Your task to perform on an android device: Do I have any events today? Image 0: 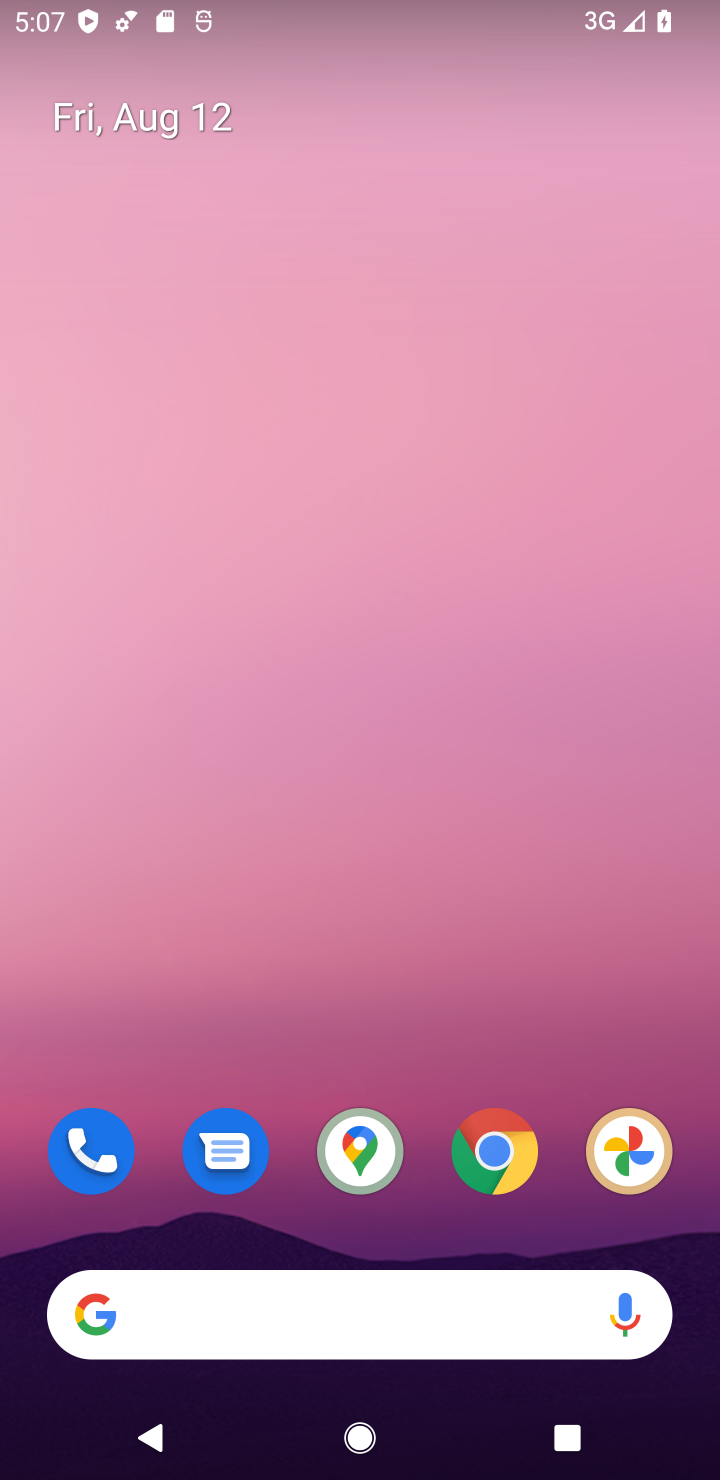
Step 0: drag from (438, 1054) to (602, 11)
Your task to perform on an android device: Do I have any events today? Image 1: 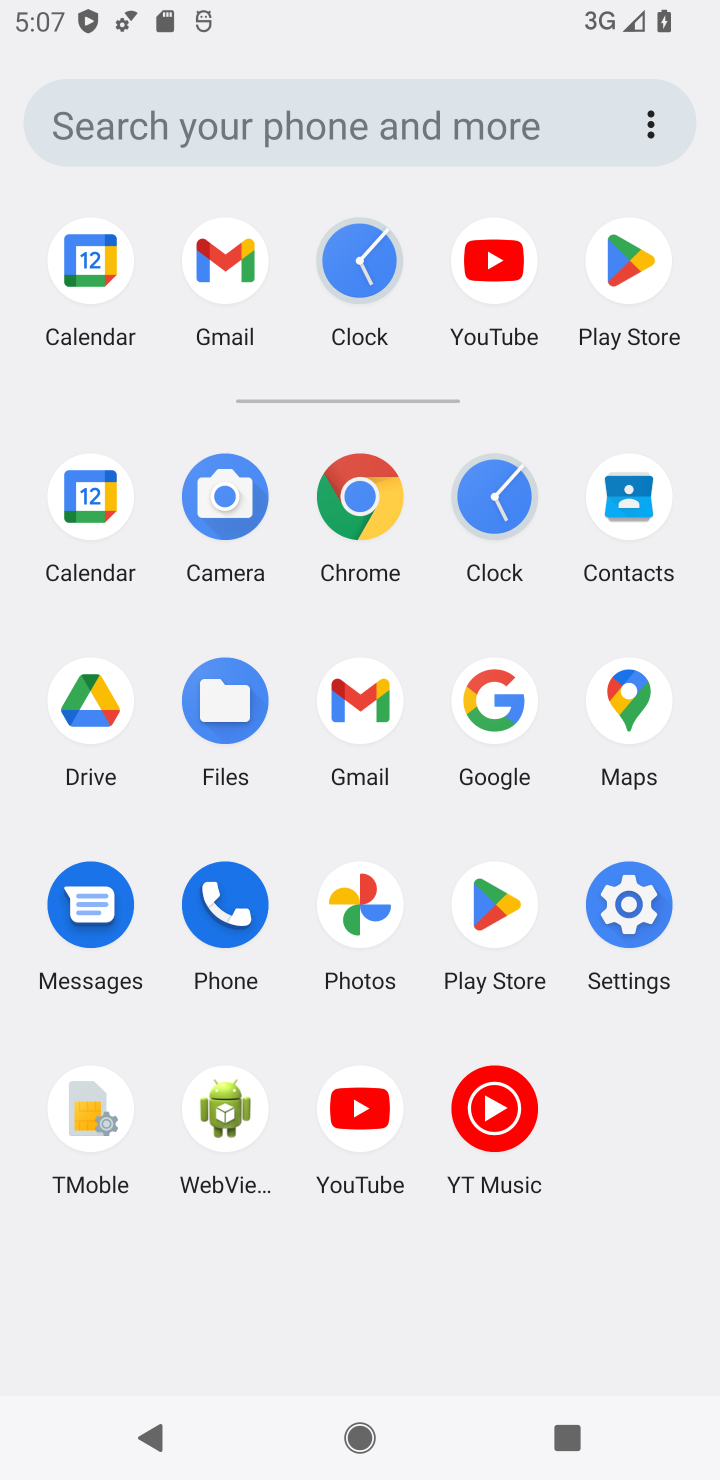
Step 1: click (357, 497)
Your task to perform on an android device: Do I have any events today? Image 2: 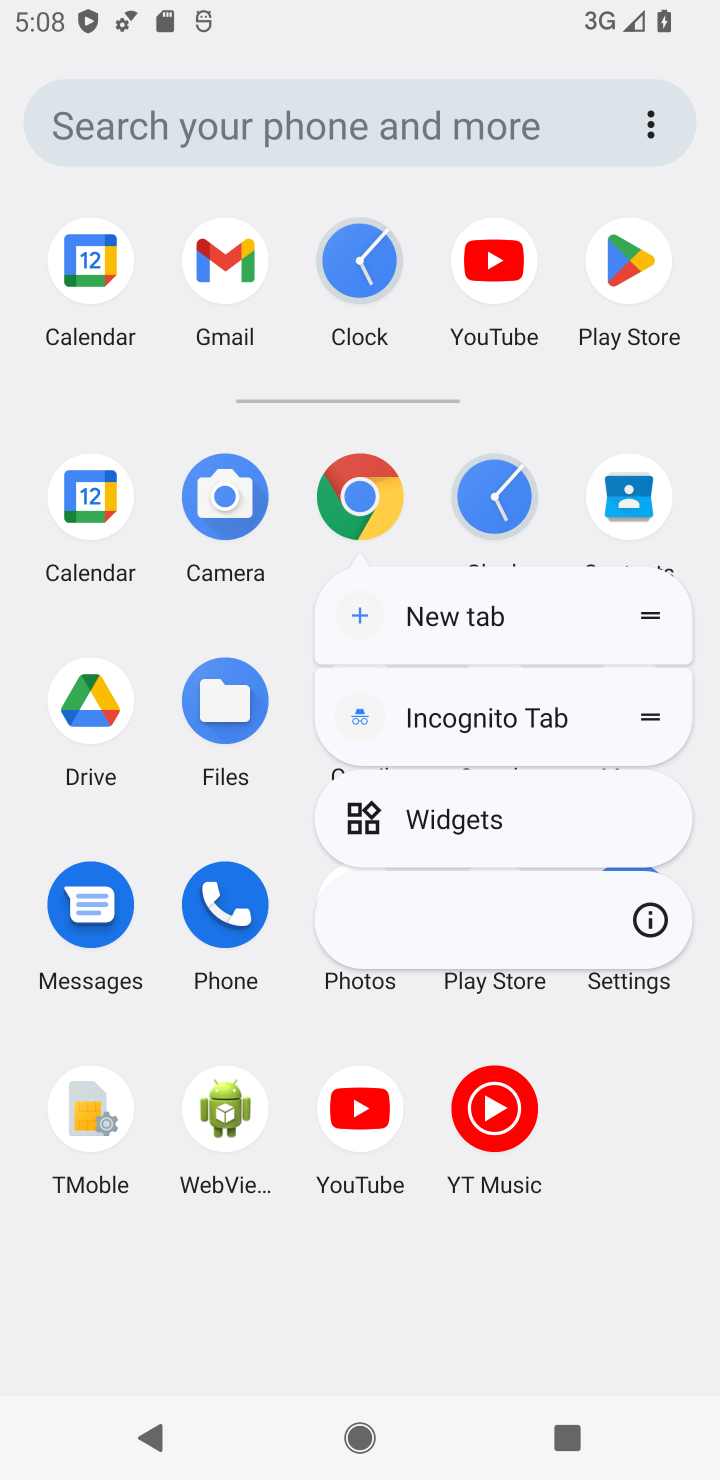
Step 2: click (357, 497)
Your task to perform on an android device: Do I have any events today? Image 3: 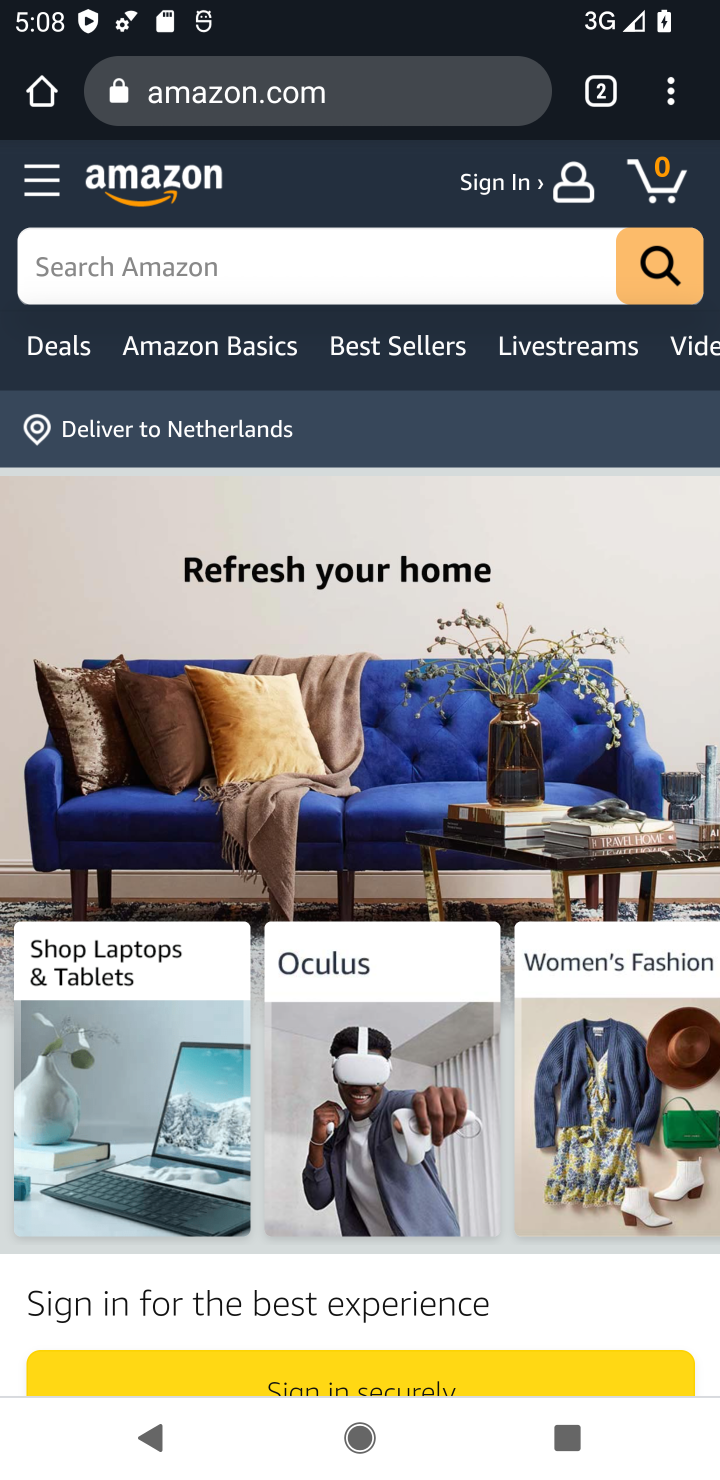
Step 3: press home button
Your task to perform on an android device: Do I have any events today? Image 4: 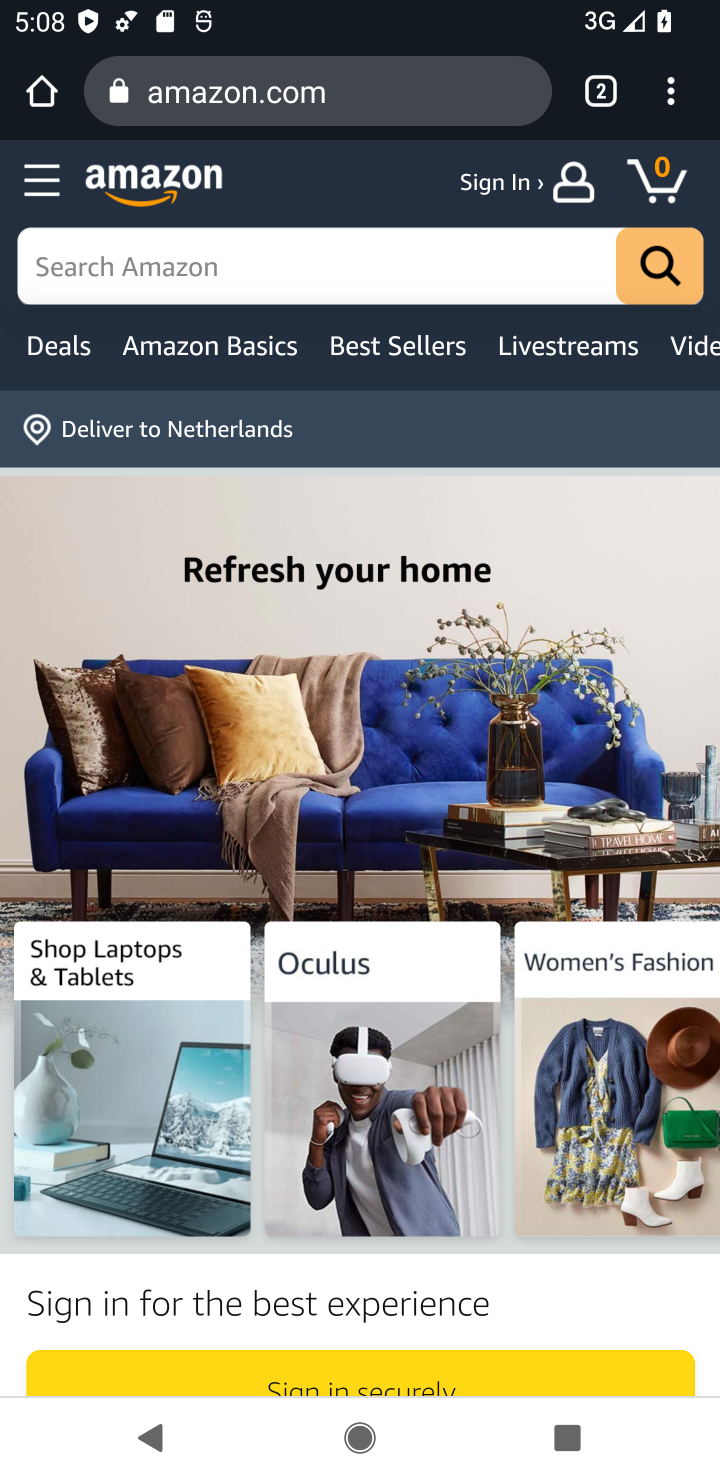
Step 4: press home button
Your task to perform on an android device: Do I have any events today? Image 5: 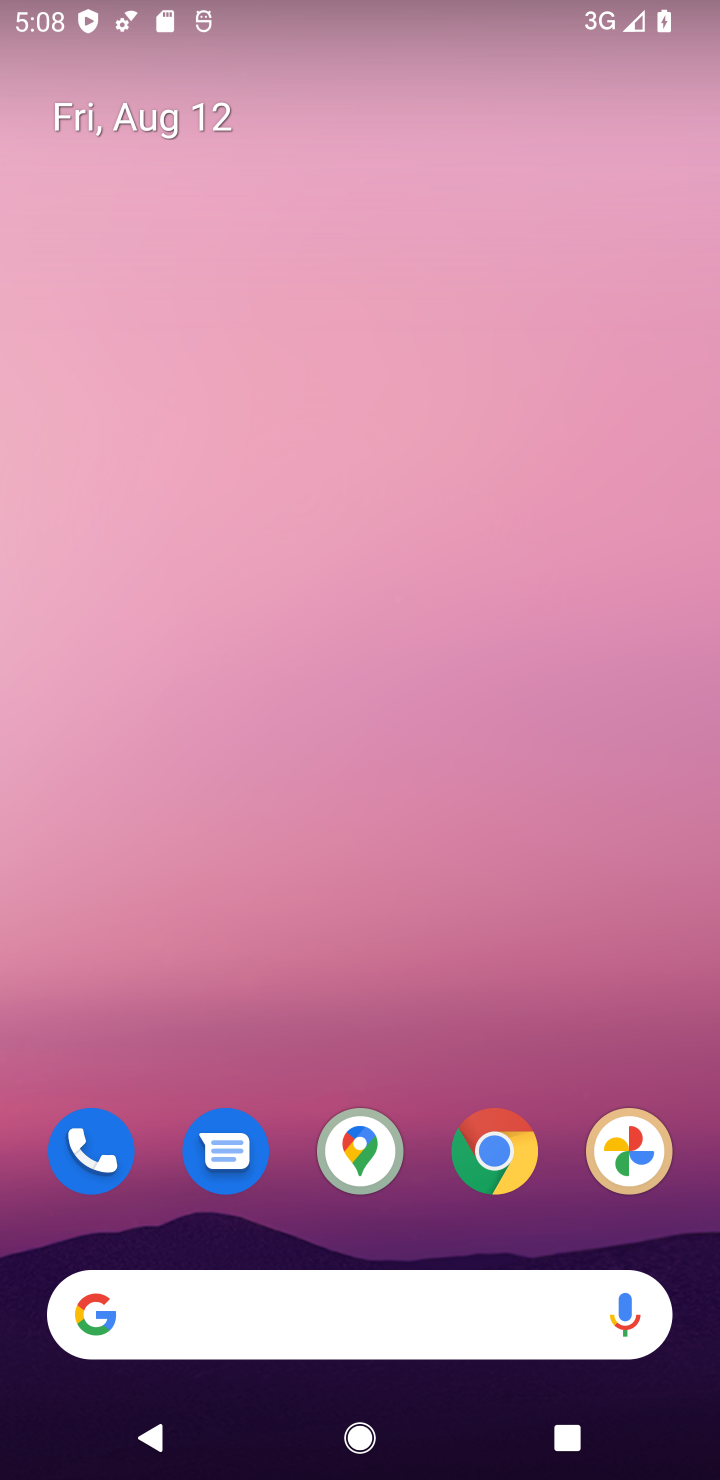
Step 5: drag from (537, 946) to (691, 3)
Your task to perform on an android device: Do I have any events today? Image 6: 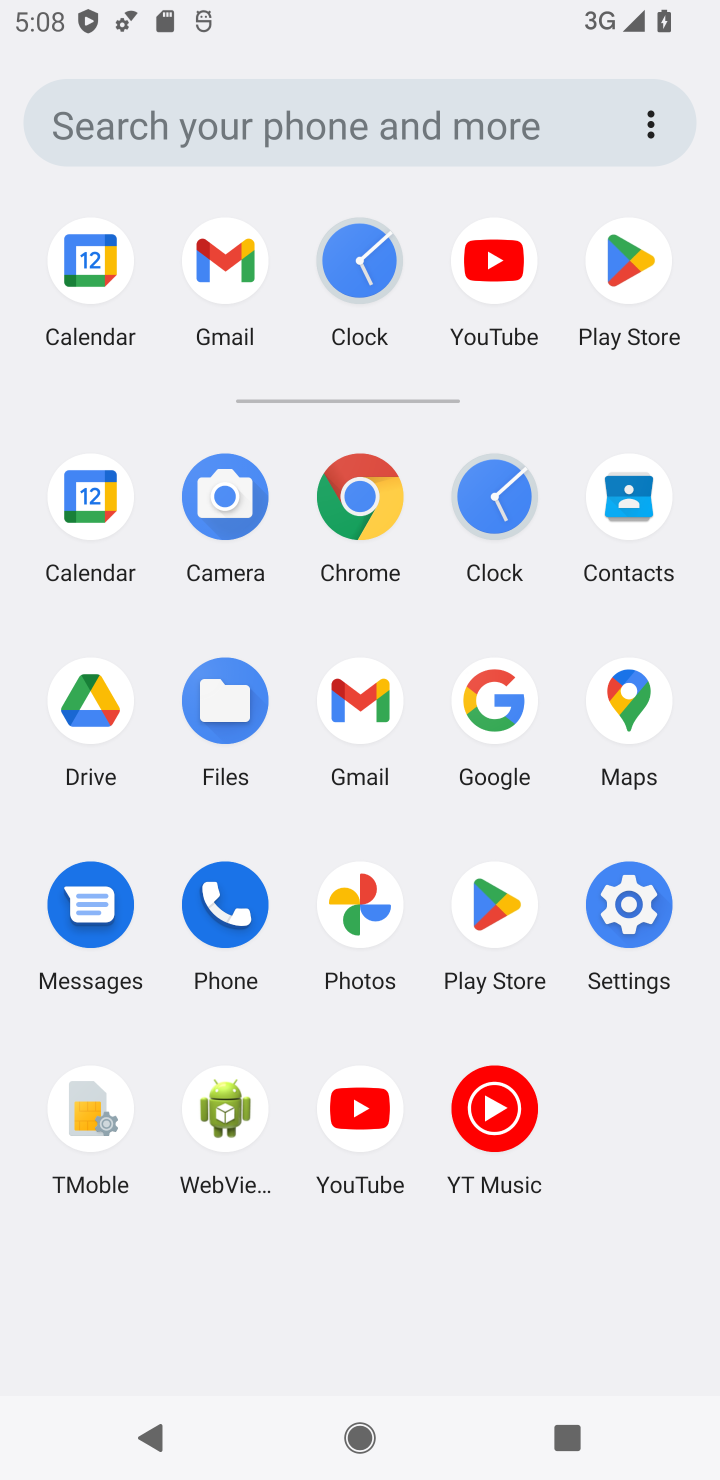
Step 6: click (103, 493)
Your task to perform on an android device: Do I have any events today? Image 7: 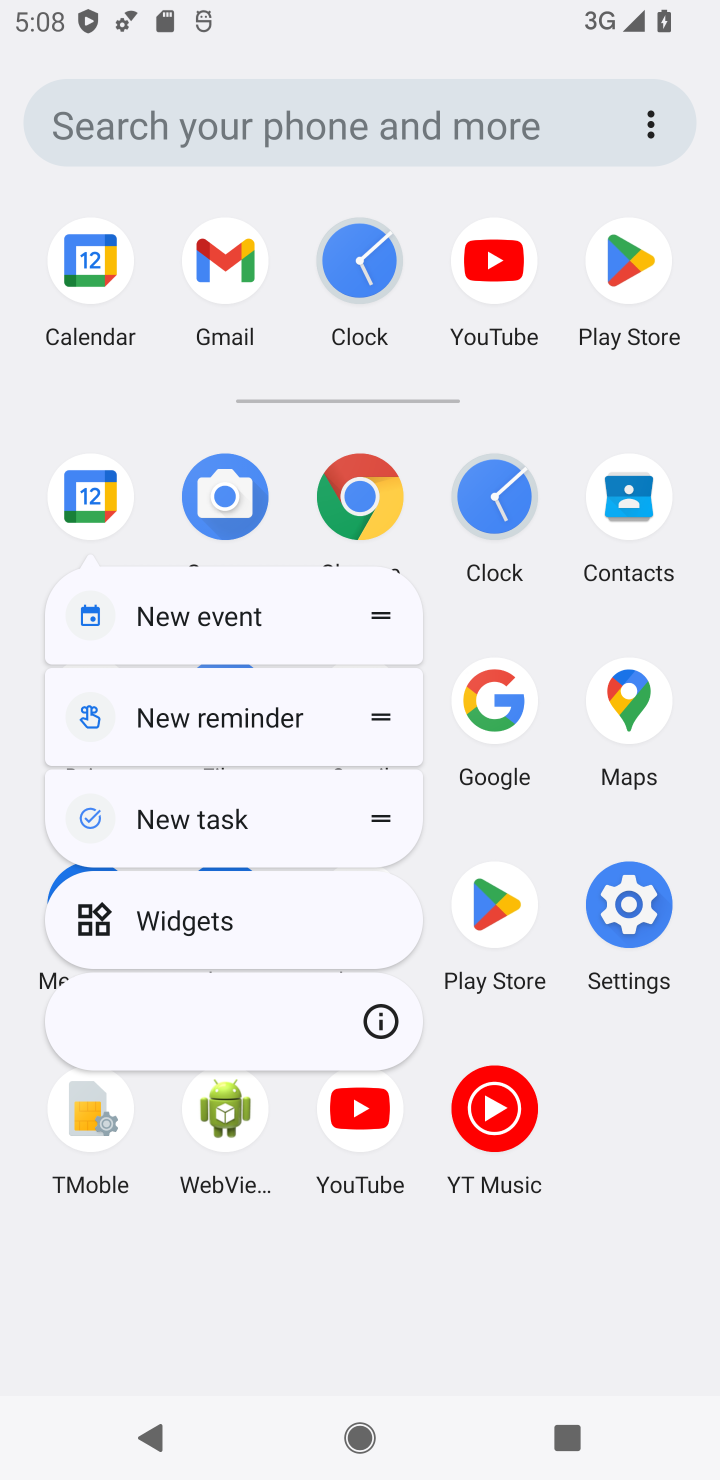
Step 7: click (100, 494)
Your task to perform on an android device: Do I have any events today? Image 8: 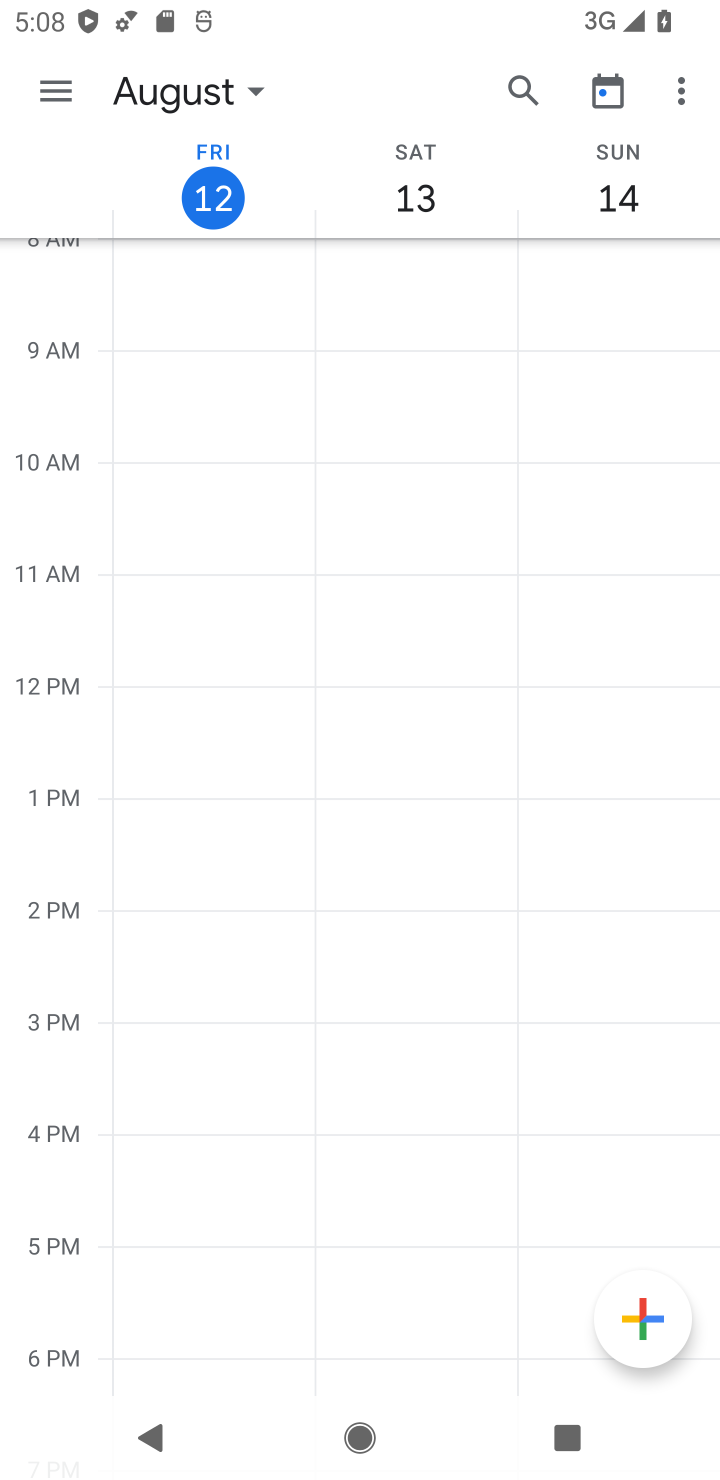
Step 8: click (210, 195)
Your task to perform on an android device: Do I have any events today? Image 9: 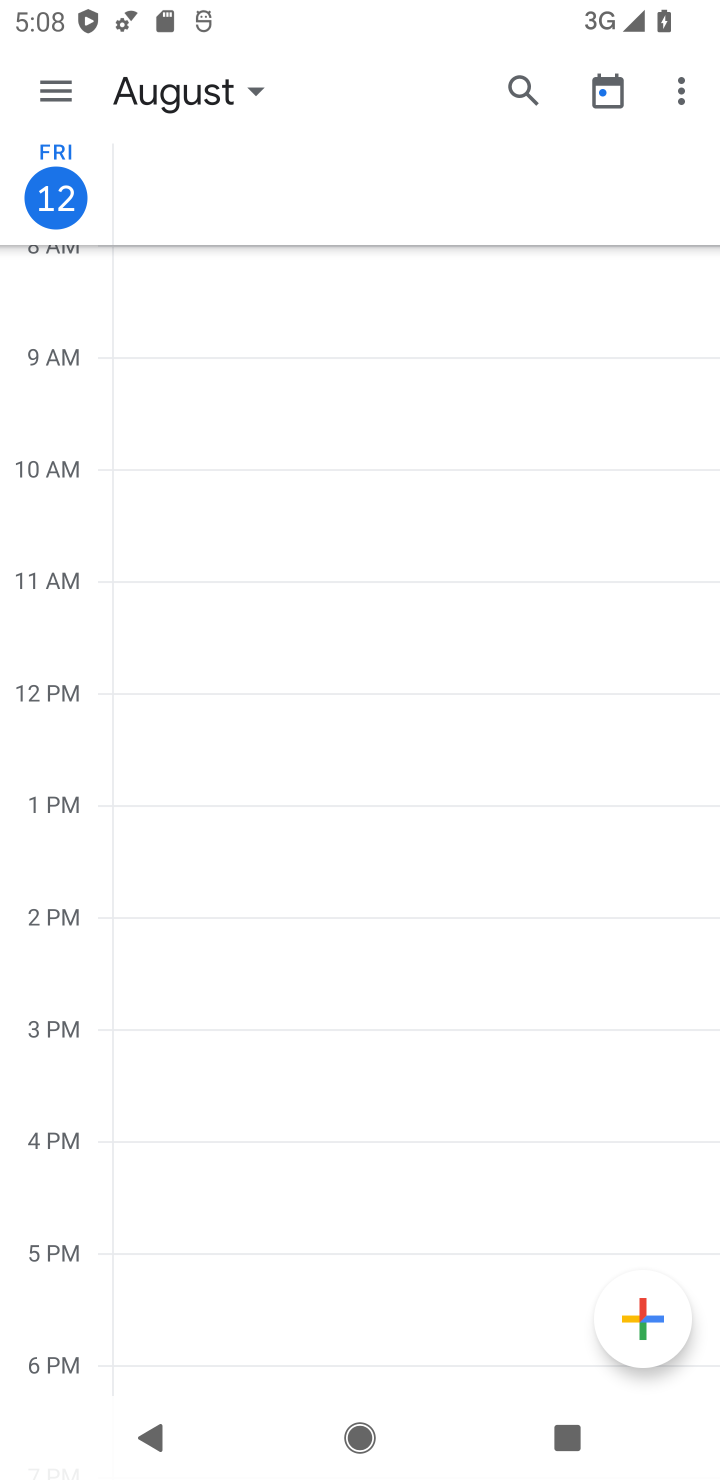
Step 9: task complete